Your task to perform on an android device: see sites visited before in the chrome app Image 0: 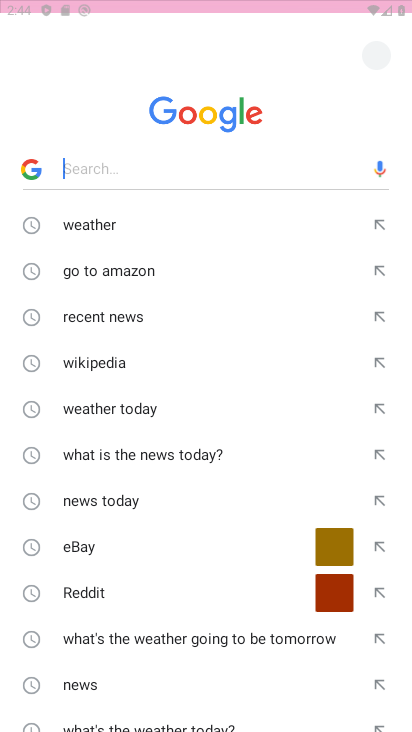
Step 0: click (357, 495)
Your task to perform on an android device: see sites visited before in the chrome app Image 1: 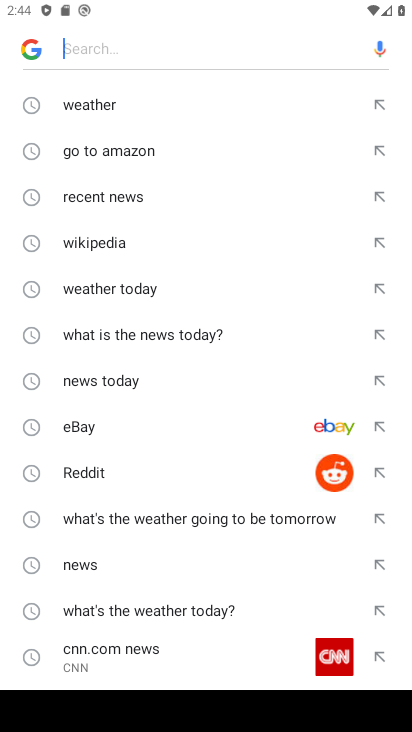
Step 1: press back button
Your task to perform on an android device: see sites visited before in the chrome app Image 2: 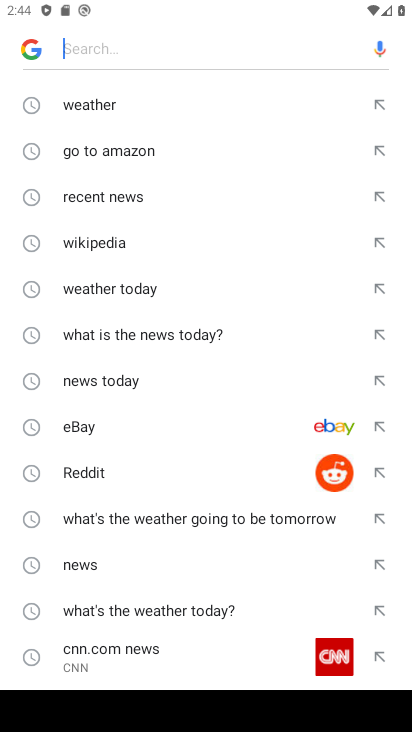
Step 2: press back button
Your task to perform on an android device: see sites visited before in the chrome app Image 3: 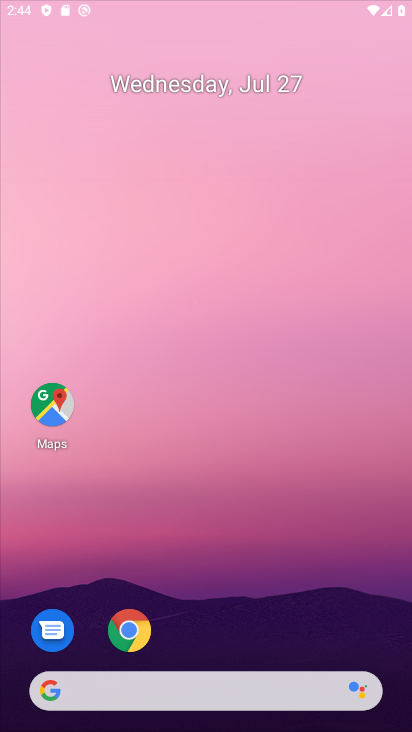
Step 3: press back button
Your task to perform on an android device: see sites visited before in the chrome app Image 4: 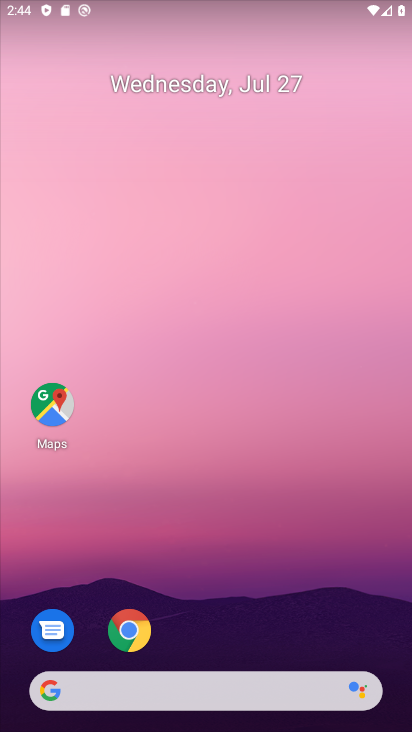
Step 4: drag from (304, 379) to (300, 143)
Your task to perform on an android device: see sites visited before in the chrome app Image 5: 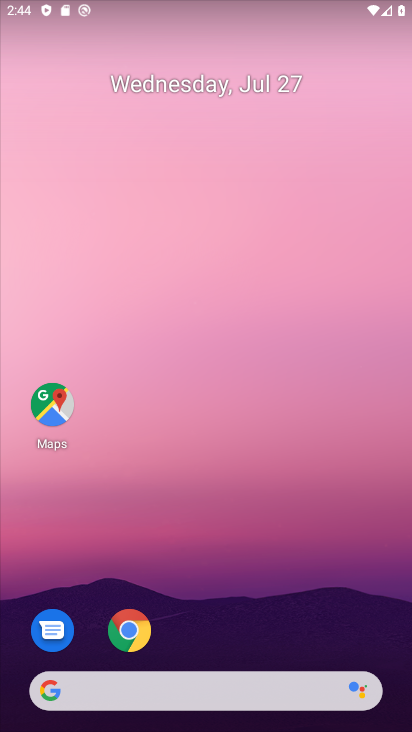
Step 5: drag from (341, 715) to (238, 138)
Your task to perform on an android device: see sites visited before in the chrome app Image 6: 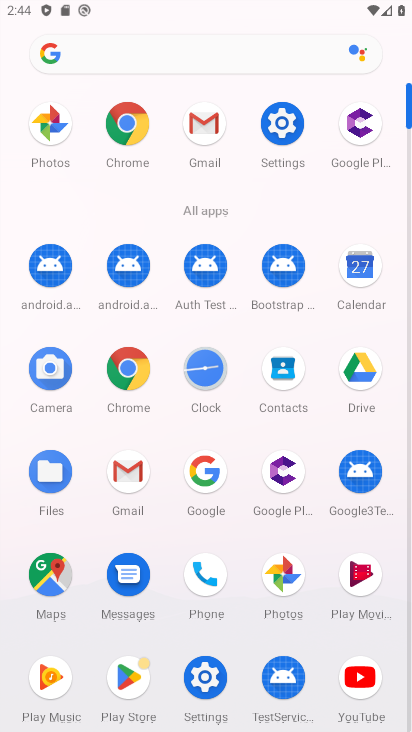
Step 6: click (135, 130)
Your task to perform on an android device: see sites visited before in the chrome app Image 7: 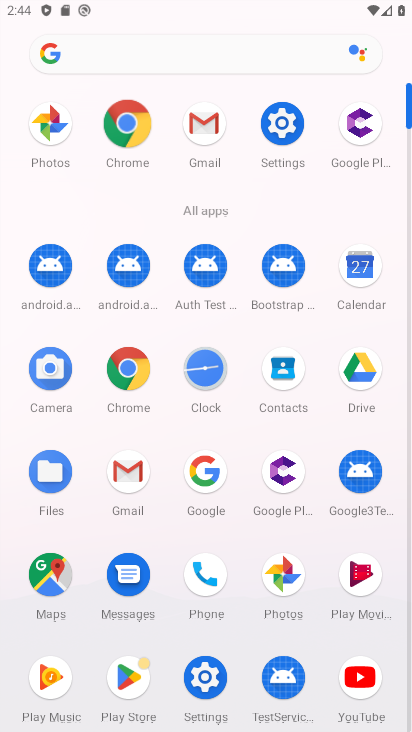
Step 7: click (132, 129)
Your task to perform on an android device: see sites visited before in the chrome app Image 8: 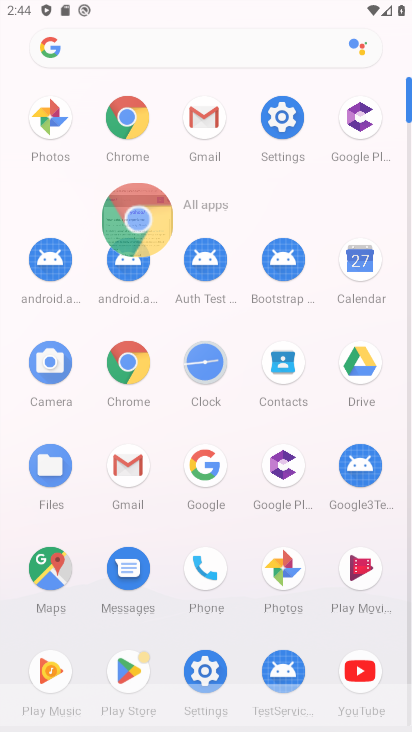
Step 8: click (132, 129)
Your task to perform on an android device: see sites visited before in the chrome app Image 9: 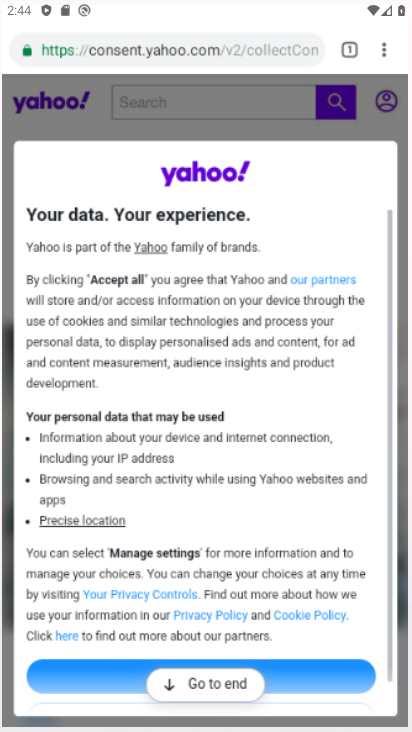
Step 9: click (133, 126)
Your task to perform on an android device: see sites visited before in the chrome app Image 10: 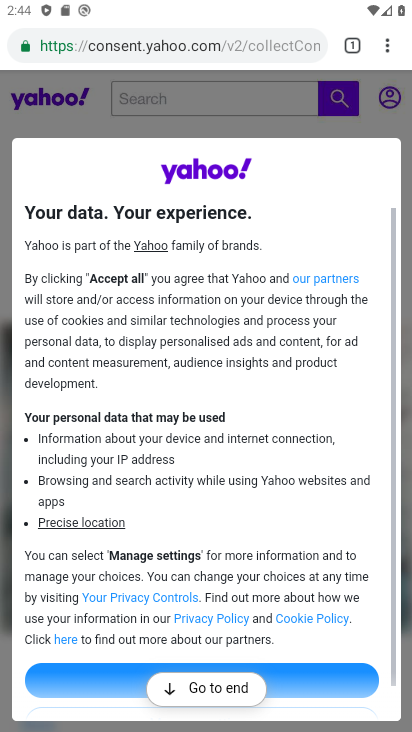
Step 10: drag from (392, 40) to (208, 215)
Your task to perform on an android device: see sites visited before in the chrome app Image 11: 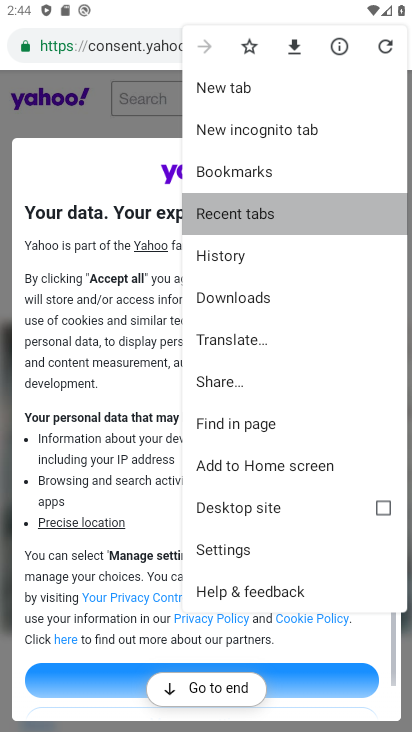
Step 11: click (210, 215)
Your task to perform on an android device: see sites visited before in the chrome app Image 12: 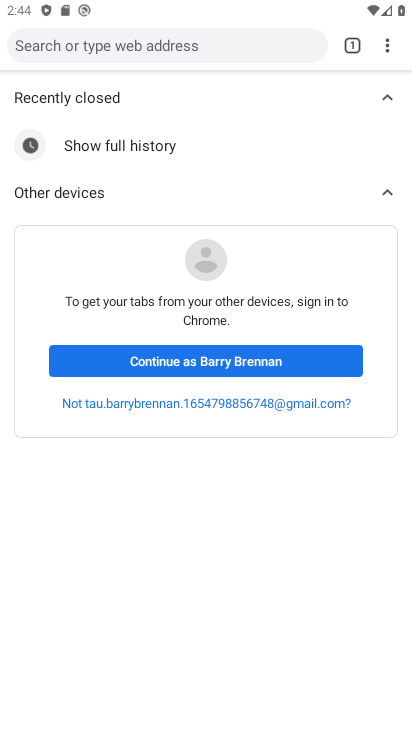
Step 12: task complete